Your task to perform on an android device: toggle data saver in the chrome app Image 0: 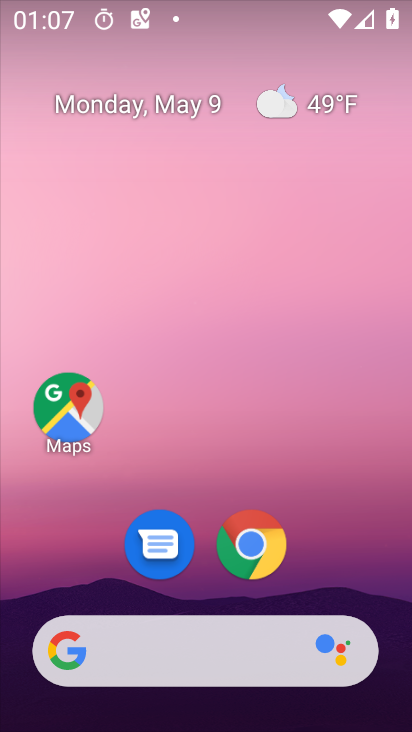
Step 0: drag from (327, 632) to (283, 40)
Your task to perform on an android device: toggle data saver in the chrome app Image 1: 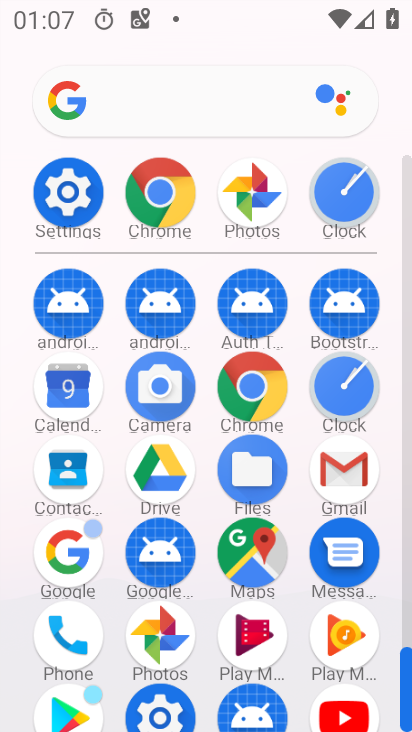
Step 1: click (263, 380)
Your task to perform on an android device: toggle data saver in the chrome app Image 2: 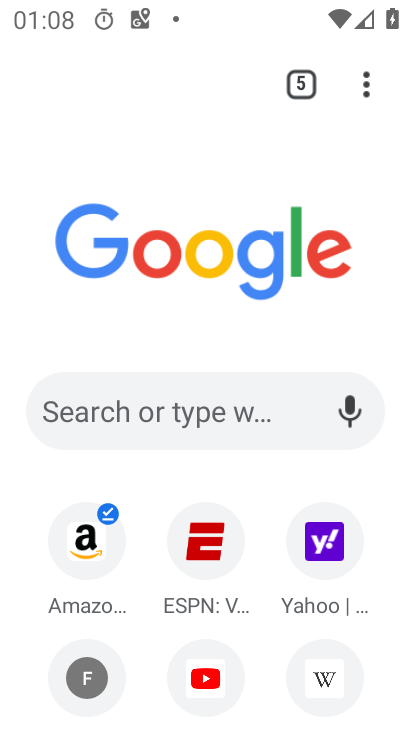
Step 2: drag from (357, 83) to (228, 609)
Your task to perform on an android device: toggle data saver in the chrome app Image 3: 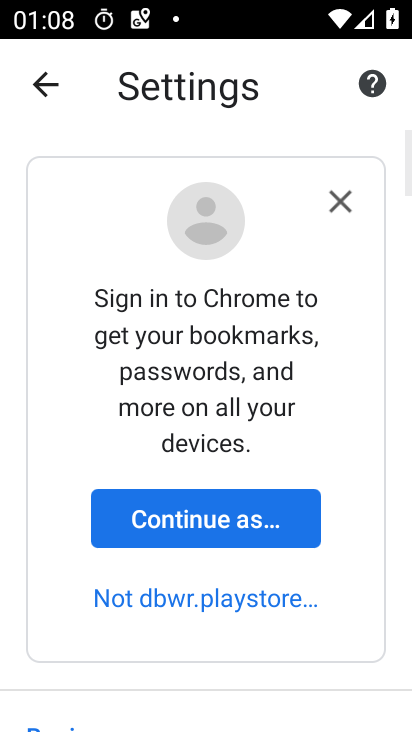
Step 3: drag from (276, 672) to (210, 64)
Your task to perform on an android device: toggle data saver in the chrome app Image 4: 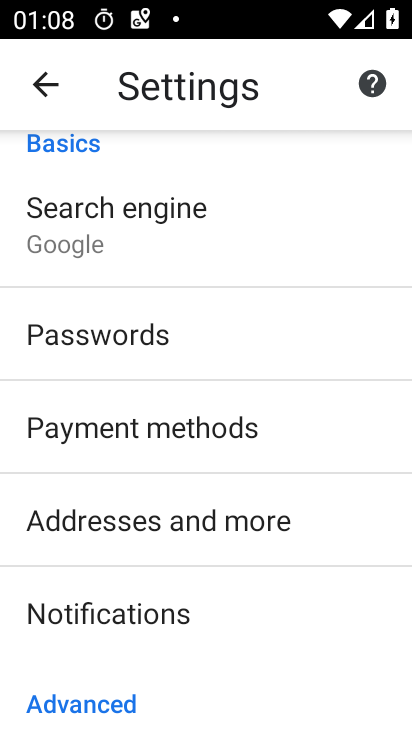
Step 4: drag from (226, 680) to (261, 73)
Your task to perform on an android device: toggle data saver in the chrome app Image 5: 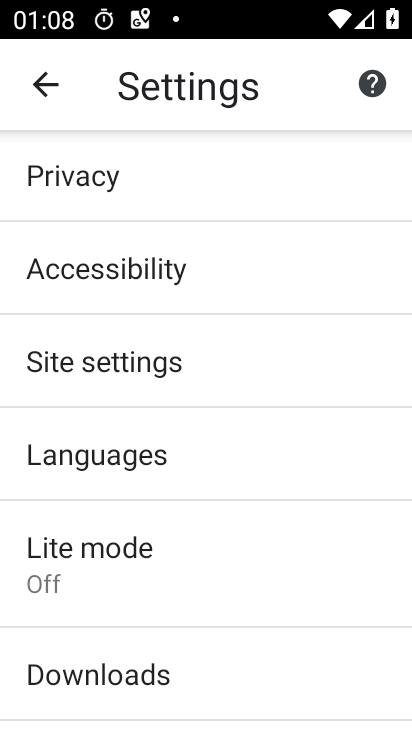
Step 5: click (194, 546)
Your task to perform on an android device: toggle data saver in the chrome app Image 6: 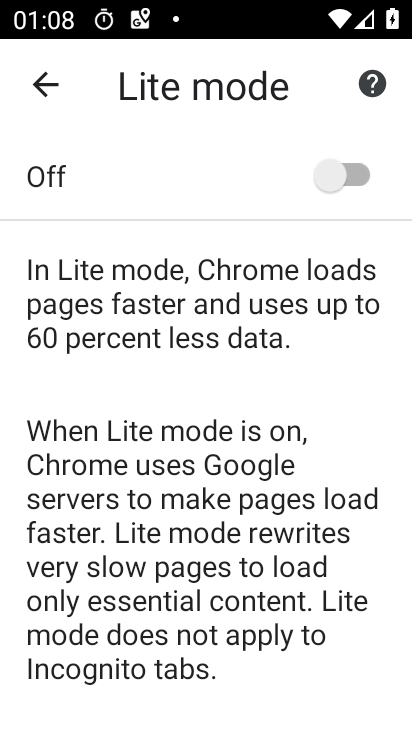
Step 6: click (366, 177)
Your task to perform on an android device: toggle data saver in the chrome app Image 7: 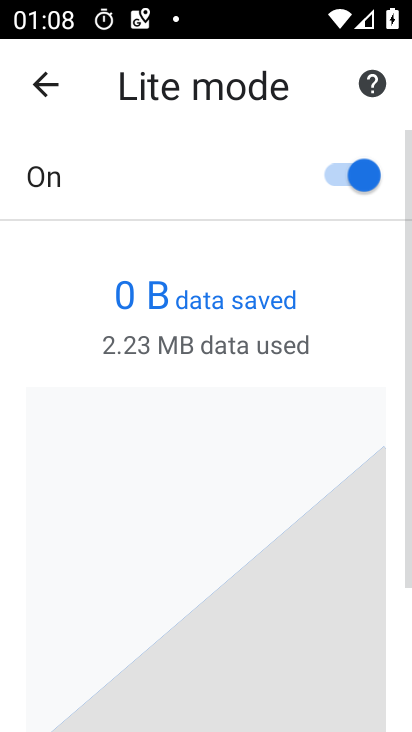
Step 7: task complete